Your task to perform on an android device: What's on my calendar today? Image 0: 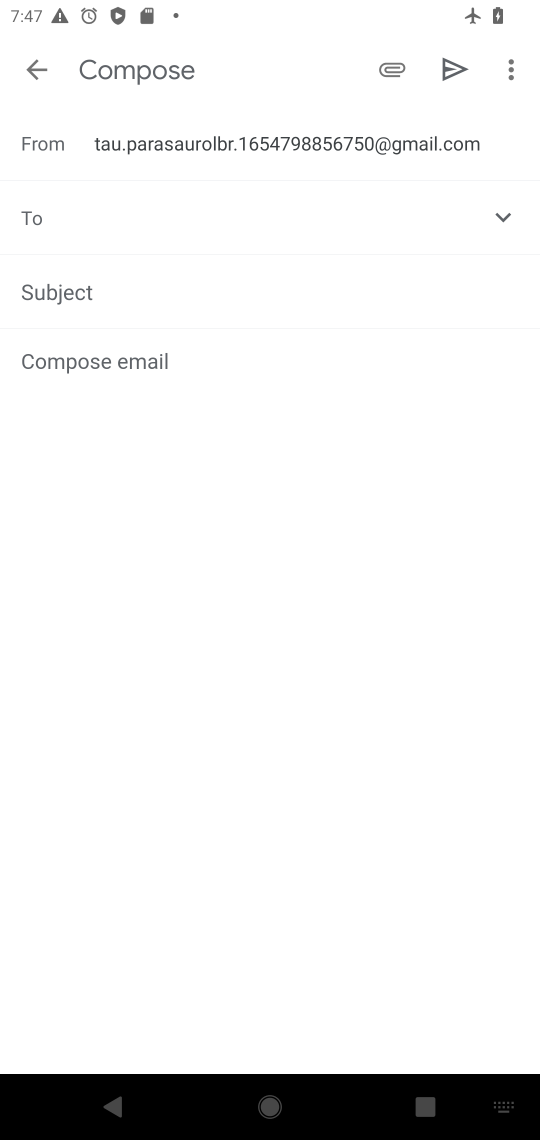
Step 0: press home button
Your task to perform on an android device: What's on my calendar today? Image 1: 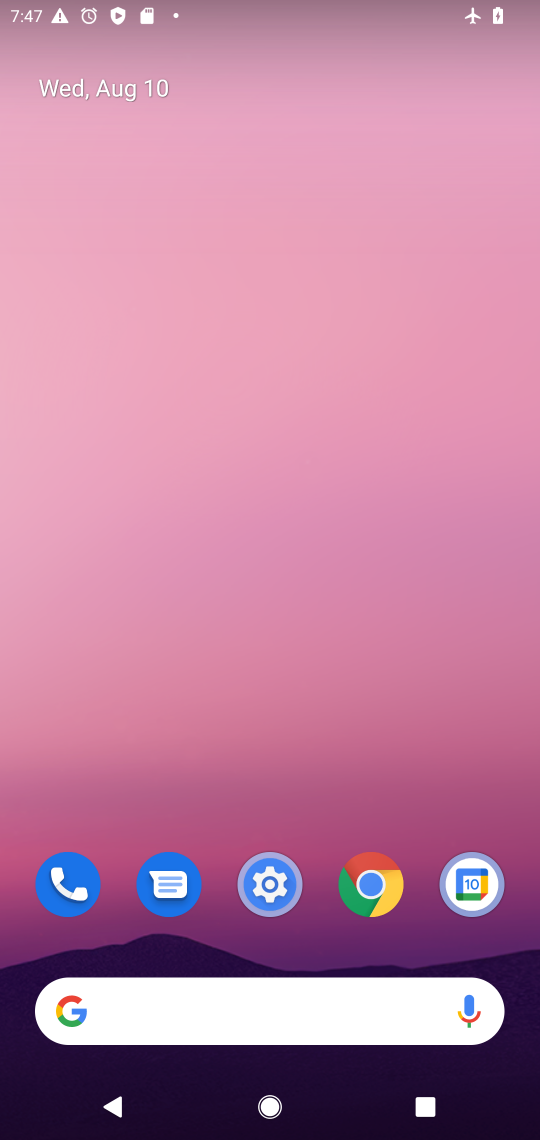
Step 1: click (461, 875)
Your task to perform on an android device: What's on my calendar today? Image 2: 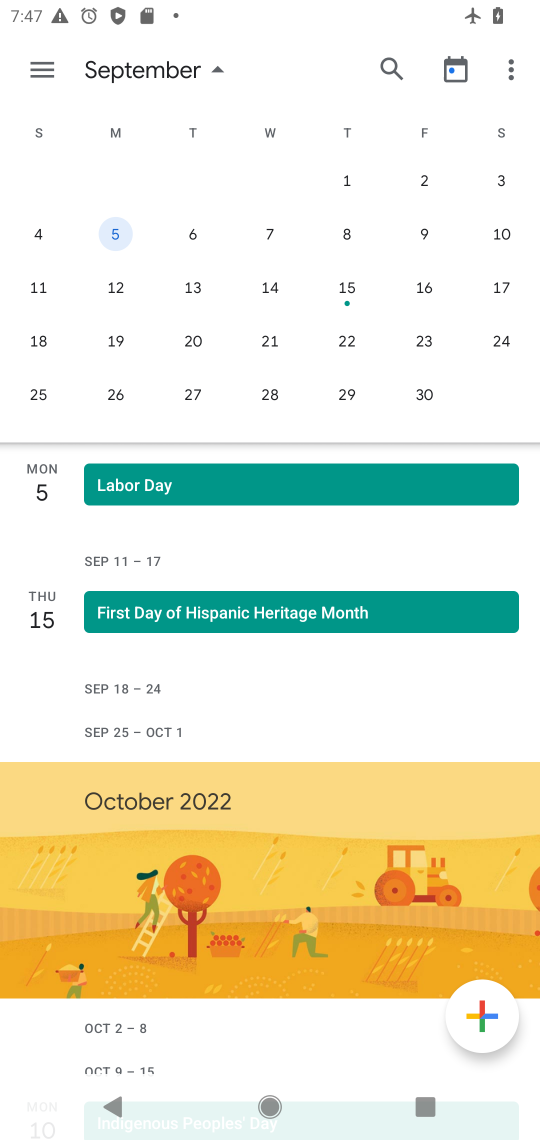
Step 2: drag from (19, 266) to (497, 406)
Your task to perform on an android device: What's on my calendar today? Image 3: 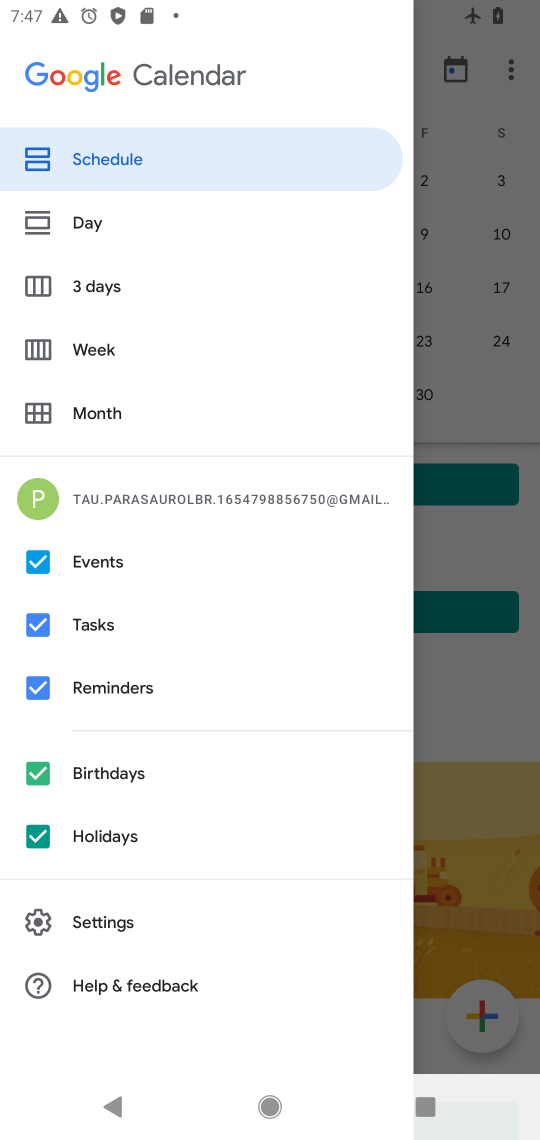
Step 3: click (481, 540)
Your task to perform on an android device: What's on my calendar today? Image 4: 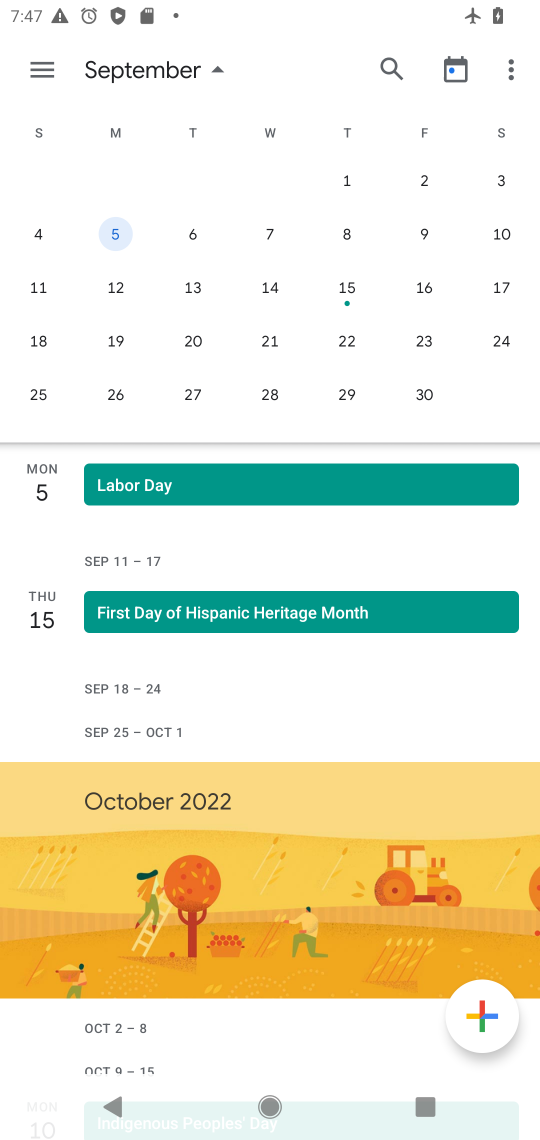
Step 4: click (481, 540)
Your task to perform on an android device: What's on my calendar today? Image 5: 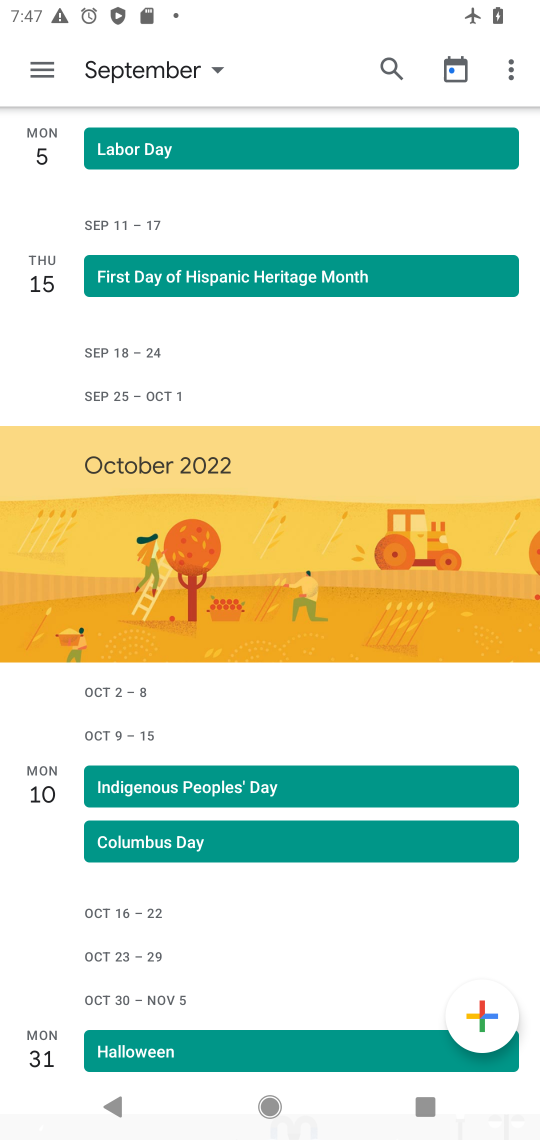
Step 5: click (216, 73)
Your task to perform on an android device: What's on my calendar today? Image 6: 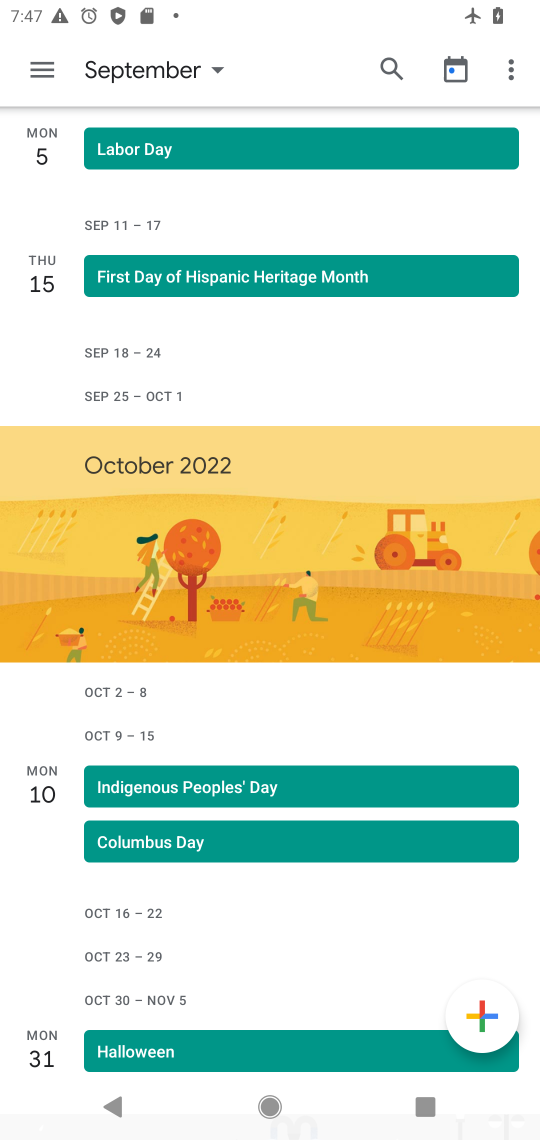
Step 6: click (210, 74)
Your task to perform on an android device: What's on my calendar today? Image 7: 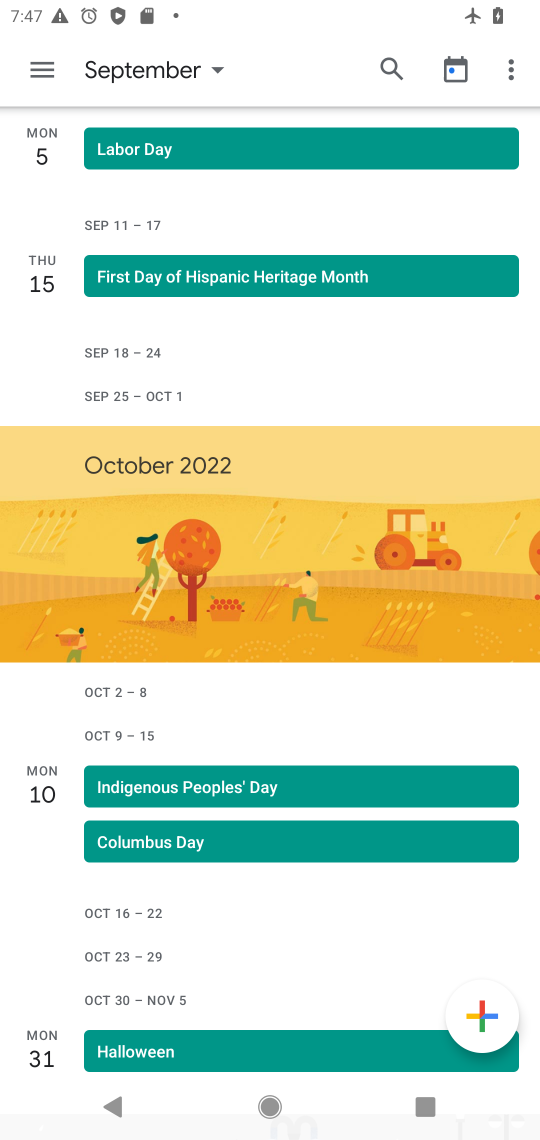
Step 7: click (213, 69)
Your task to perform on an android device: What's on my calendar today? Image 8: 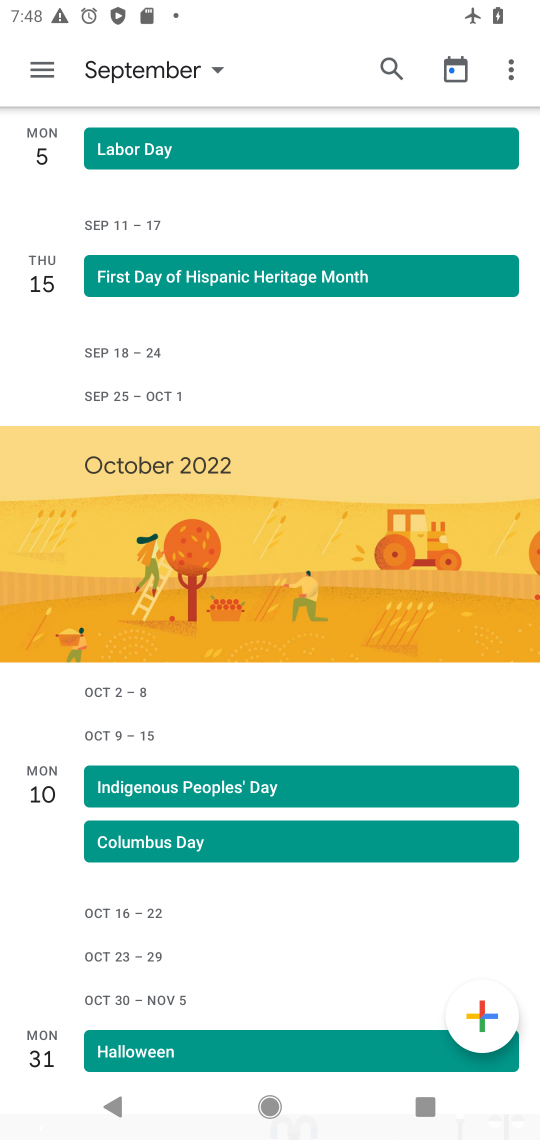
Step 8: task complete